Your task to perform on an android device: Go to internet settings Image 0: 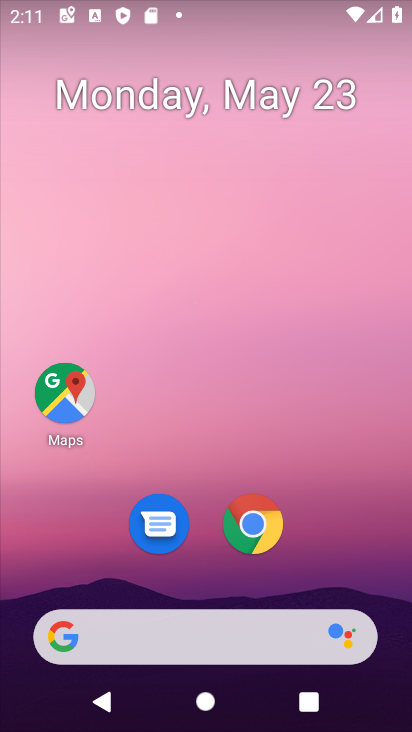
Step 0: drag from (301, 483) to (327, 32)
Your task to perform on an android device: Go to internet settings Image 1: 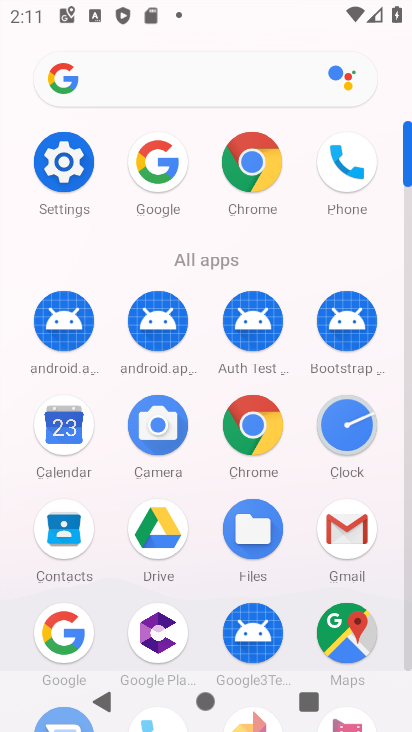
Step 1: click (67, 160)
Your task to perform on an android device: Go to internet settings Image 2: 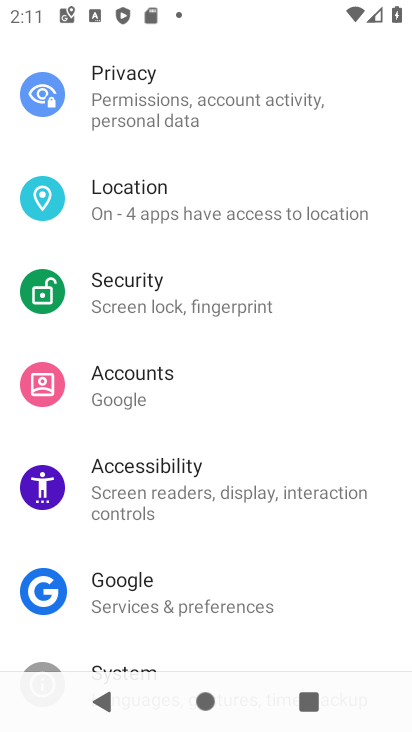
Step 2: drag from (275, 265) to (252, 618)
Your task to perform on an android device: Go to internet settings Image 3: 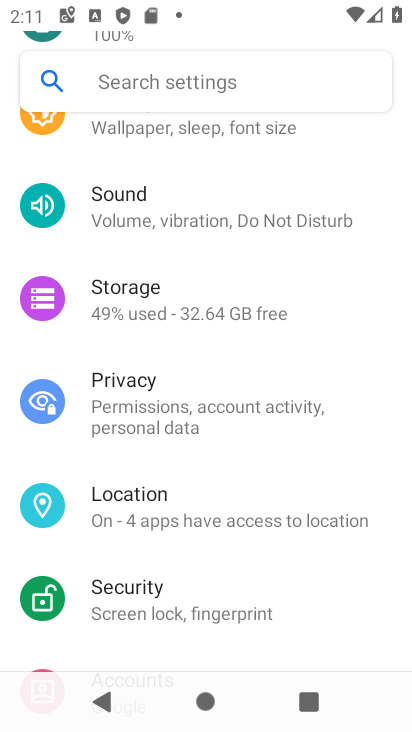
Step 3: drag from (307, 281) to (339, 625)
Your task to perform on an android device: Go to internet settings Image 4: 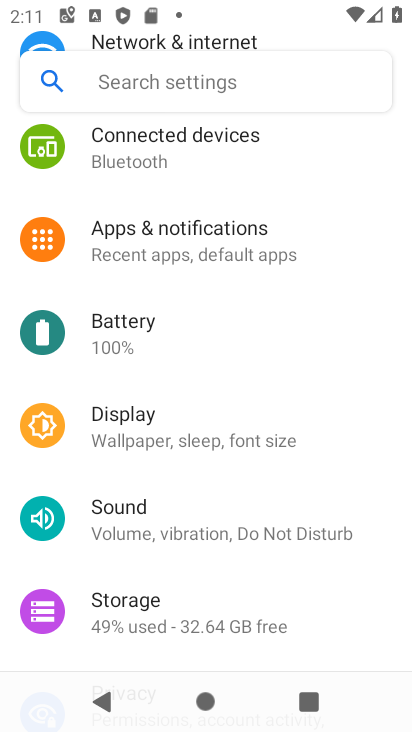
Step 4: drag from (248, 380) to (207, 632)
Your task to perform on an android device: Go to internet settings Image 5: 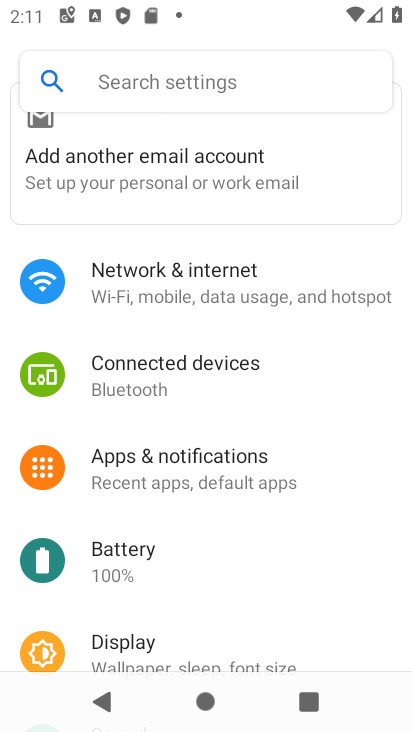
Step 5: click (221, 284)
Your task to perform on an android device: Go to internet settings Image 6: 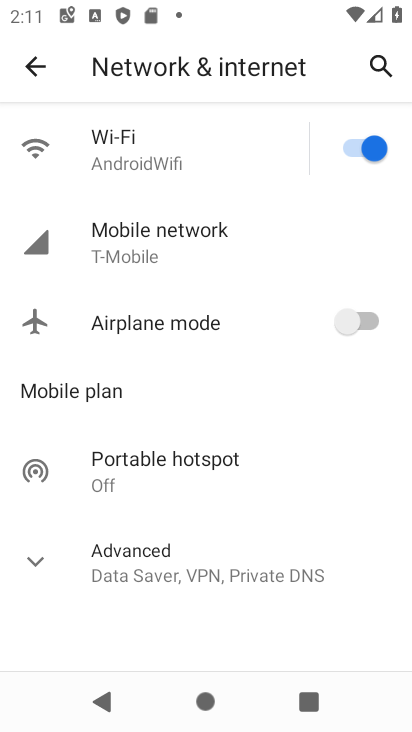
Step 6: task complete